Your task to perform on an android device: Go to battery settings Image 0: 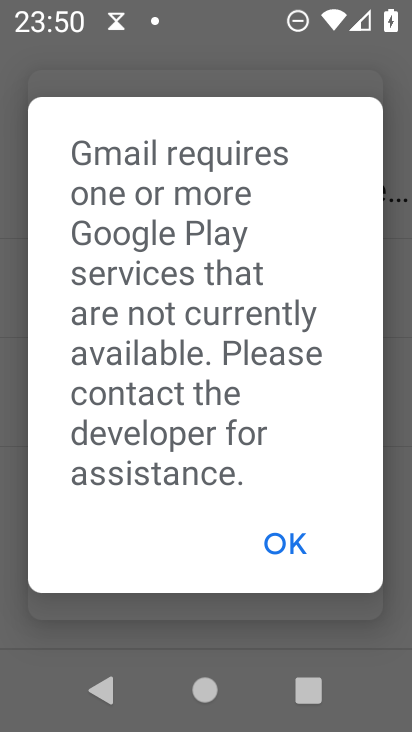
Step 0: press home button
Your task to perform on an android device: Go to battery settings Image 1: 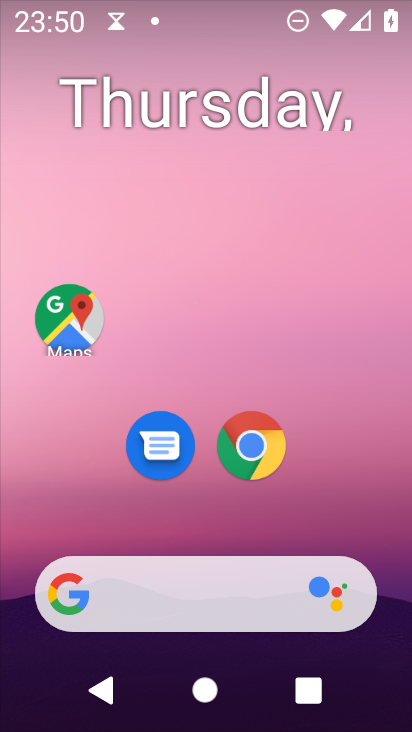
Step 1: drag from (235, 728) to (232, 146)
Your task to perform on an android device: Go to battery settings Image 2: 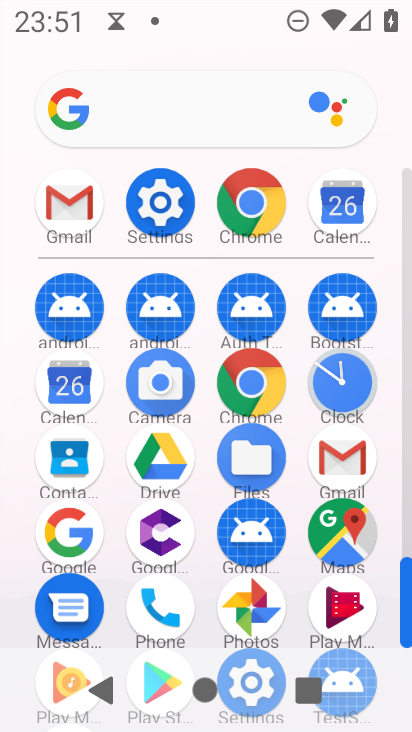
Step 2: click (161, 193)
Your task to perform on an android device: Go to battery settings Image 3: 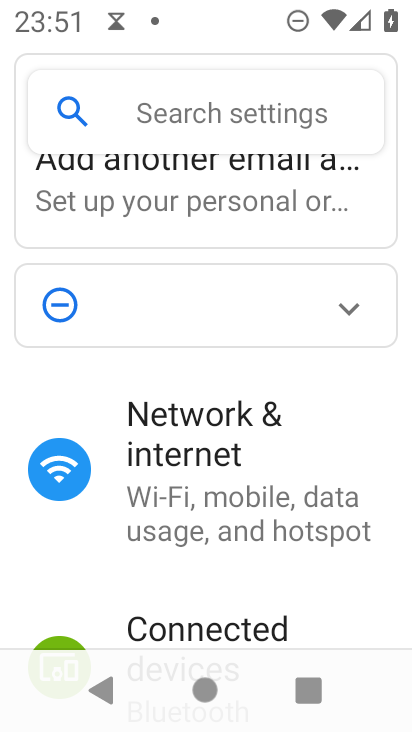
Step 3: drag from (216, 621) to (225, 338)
Your task to perform on an android device: Go to battery settings Image 4: 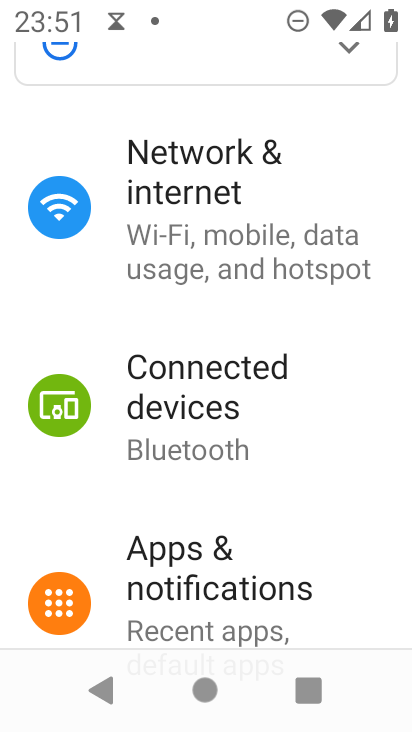
Step 4: drag from (296, 634) to (294, 150)
Your task to perform on an android device: Go to battery settings Image 5: 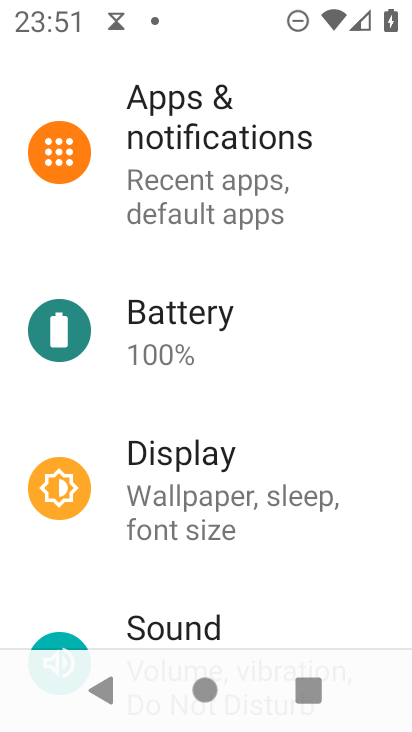
Step 5: click (170, 340)
Your task to perform on an android device: Go to battery settings Image 6: 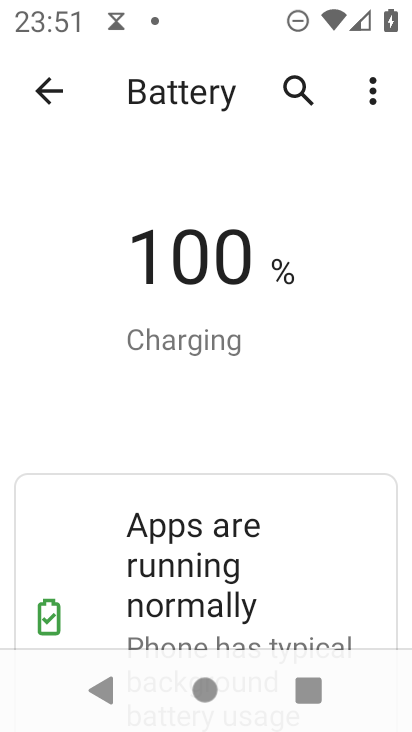
Step 6: task complete